Your task to perform on an android device: Check the weather Image 0: 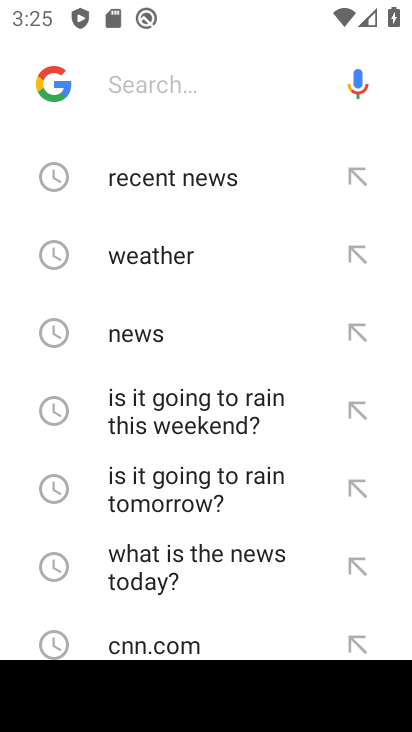
Step 0: click (147, 255)
Your task to perform on an android device: Check the weather Image 1: 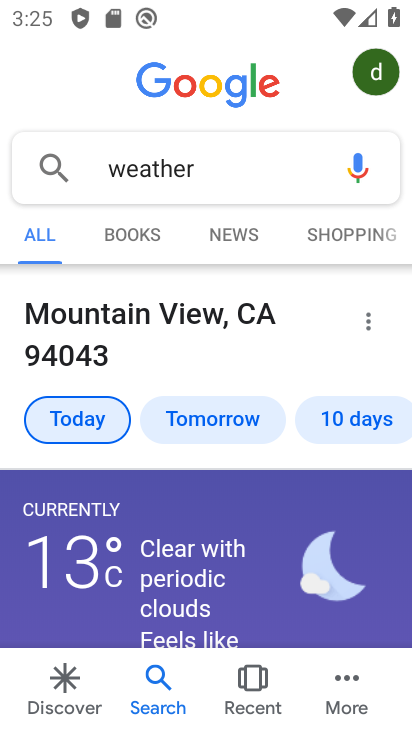
Step 1: click (59, 416)
Your task to perform on an android device: Check the weather Image 2: 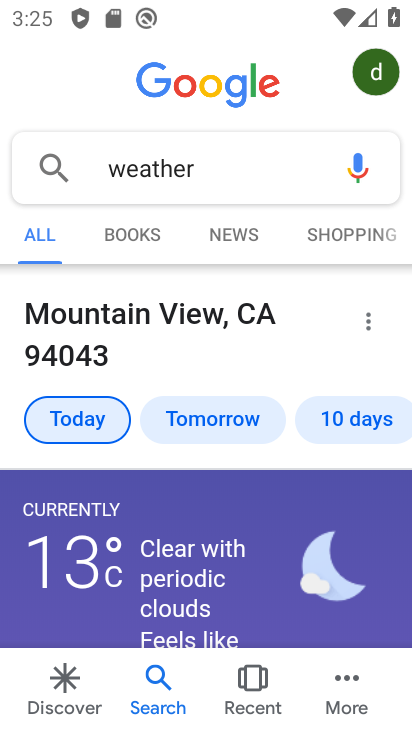
Step 2: click (59, 416)
Your task to perform on an android device: Check the weather Image 3: 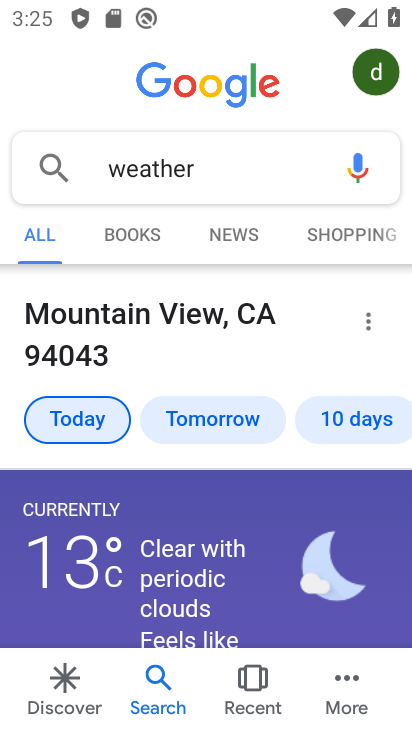
Step 3: click (59, 416)
Your task to perform on an android device: Check the weather Image 4: 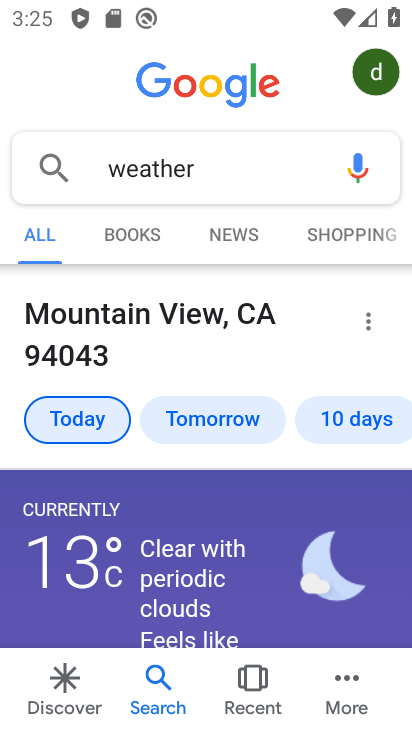
Step 4: click (189, 420)
Your task to perform on an android device: Check the weather Image 5: 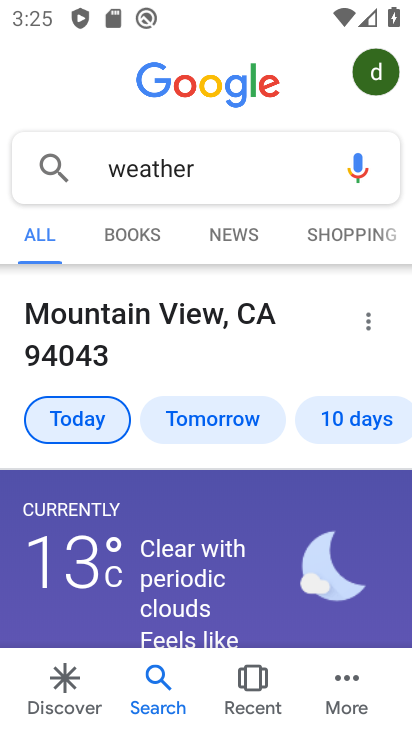
Step 5: click (189, 420)
Your task to perform on an android device: Check the weather Image 6: 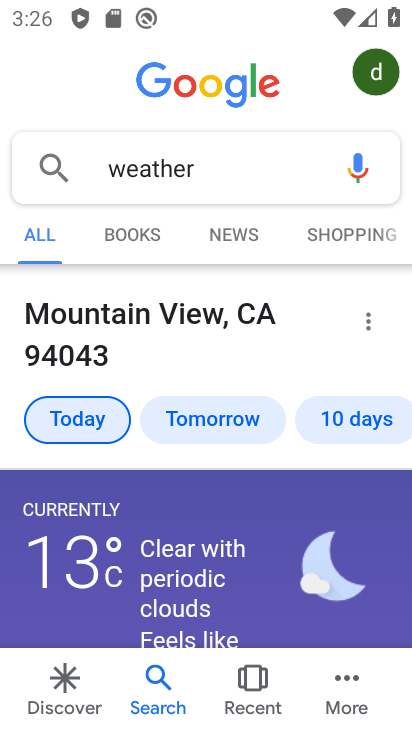
Step 6: task complete